Your task to perform on an android device: Show me productivity apps on the Play Store Image 0: 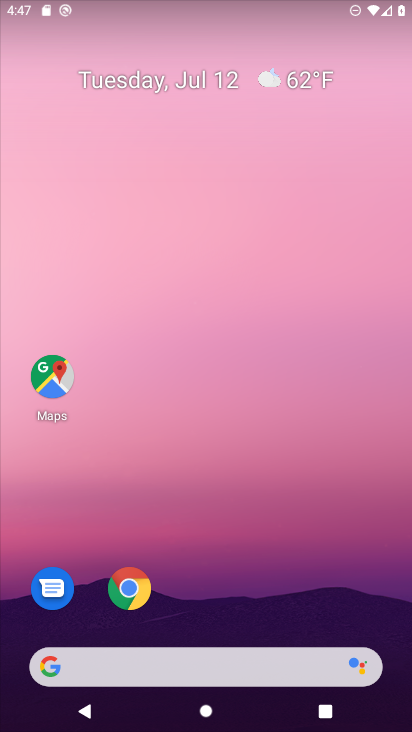
Step 0: drag from (223, 576) to (290, 40)
Your task to perform on an android device: Show me productivity apps on the Play Store Image 1: 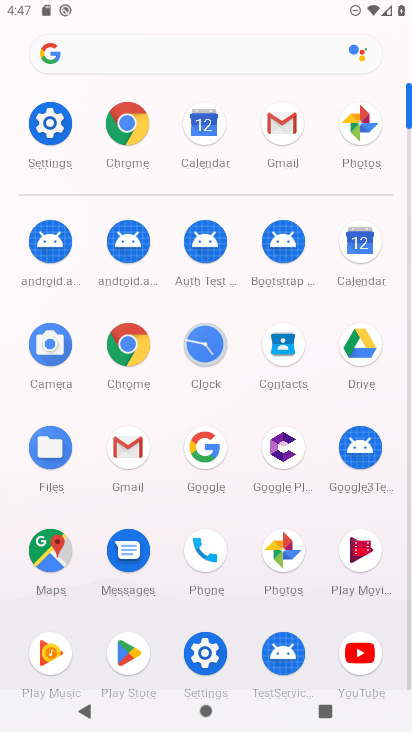
Step 1: click (140, 647)
Your task to perform on an android device: Show me productivity apps on the Play Store Image 2: 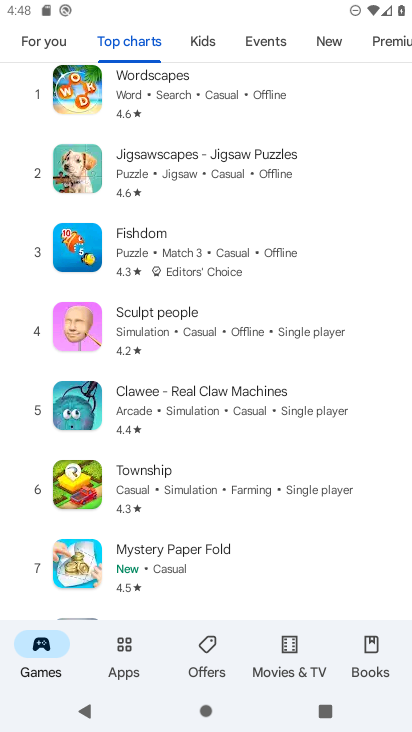
Step 2: click (128, 642)
Your task to perform on an android device: Show me productivity apps on the Play Store Image 3: 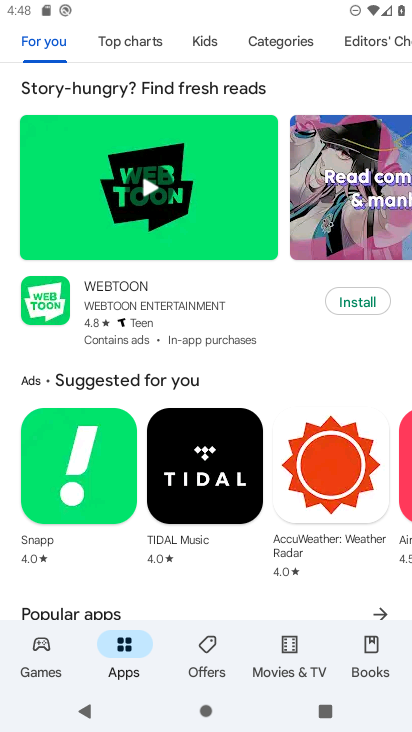
Step 3: click (310, 41)
Your task to perform on an android device: Show me productivity apps on the Play Store Image 4: 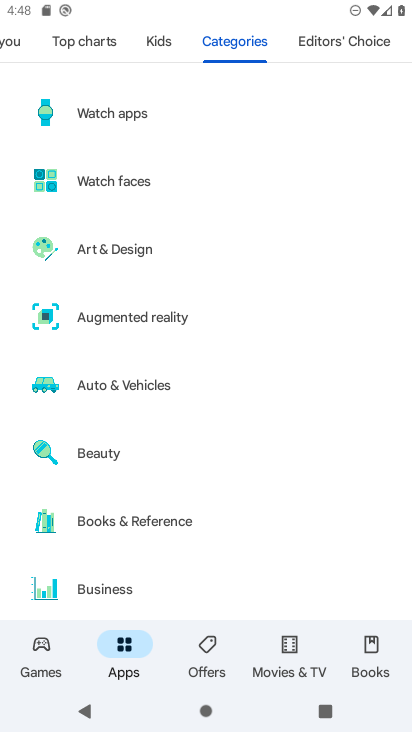
Step 4: drag from (158, 536) to (219, 132)
Your task to perform on an android device: Show me productivity apps on the Play Store Image 5: 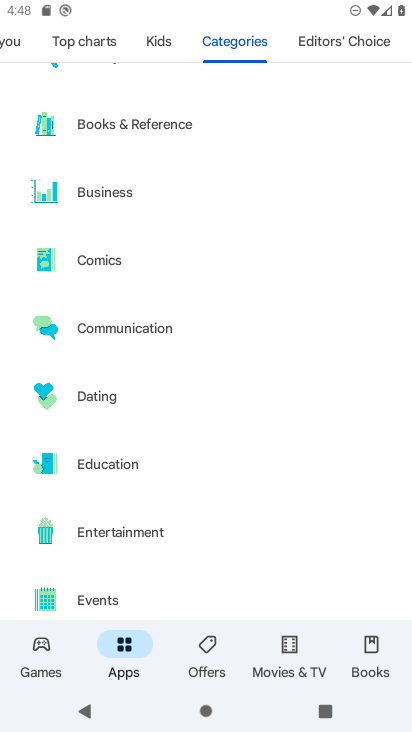
Step 5: drag from (231, 532) to (227, 113)
Your task to perform on an android device: Show me productivity apps on the Play Store Image 6: 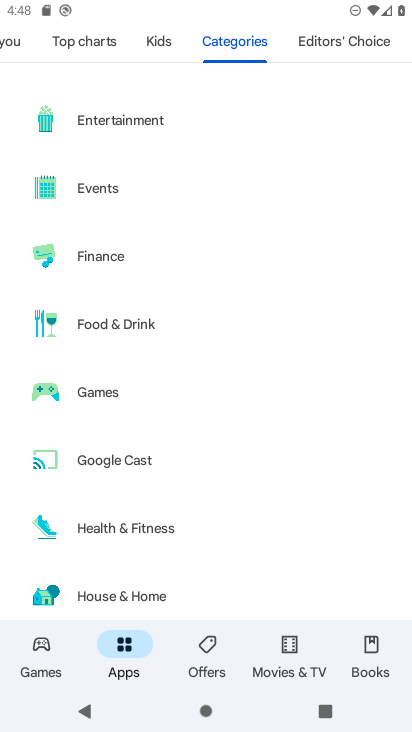
Step 6: drag from (126, 501) to (201, 14)
Your task to perform on an android device: Show me productivity apps on the Play Store Image 7: 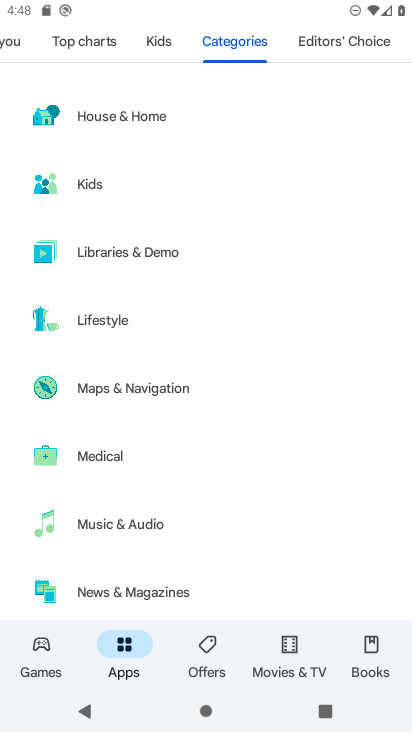
Step 7: drag from (144, 506) to (217, 15)
Your task to perform on an android device: Show me productivity apps on the Play Store Image 8: 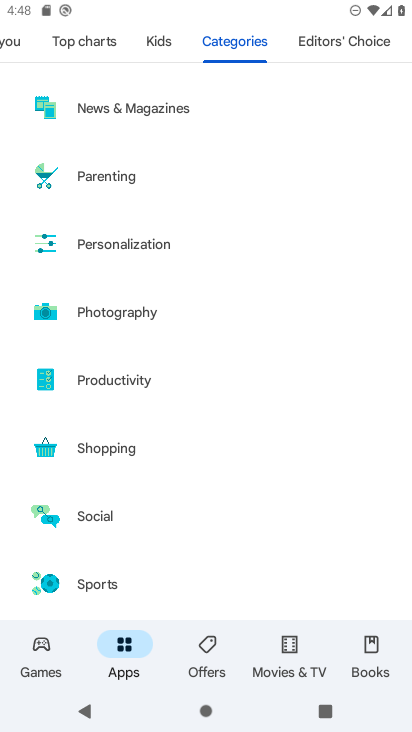
Step 8: drag from (139, 545) to (203, 168)
Your task to perform on an android device: Show me productivity apps on the Play Store Image 9: 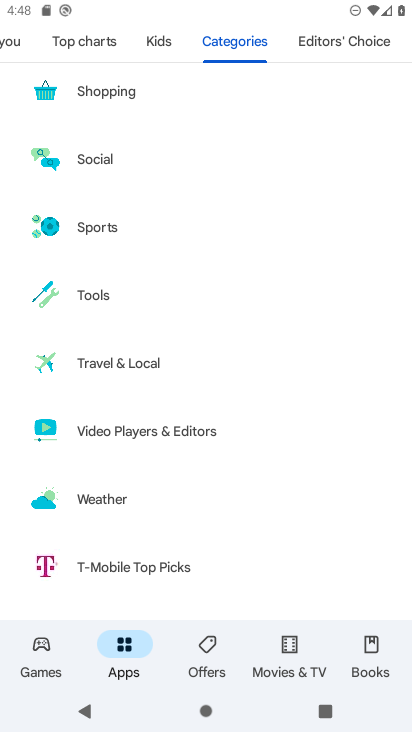
Step 9: drag from (172, 479) to (192, 187)
Your task to perform on an android device: Show me productivity apps on the Play Store Image 10: 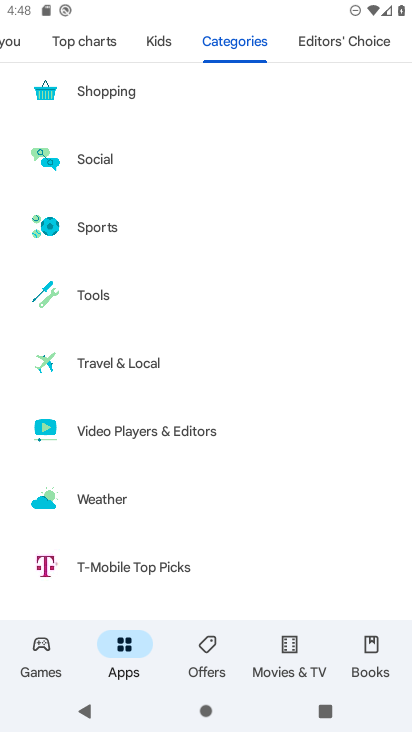
Step 10: drag from (159, 501) to (213, 118)
Your task to perform on an android device: Show me productivity apps on the Play Store Image 11: 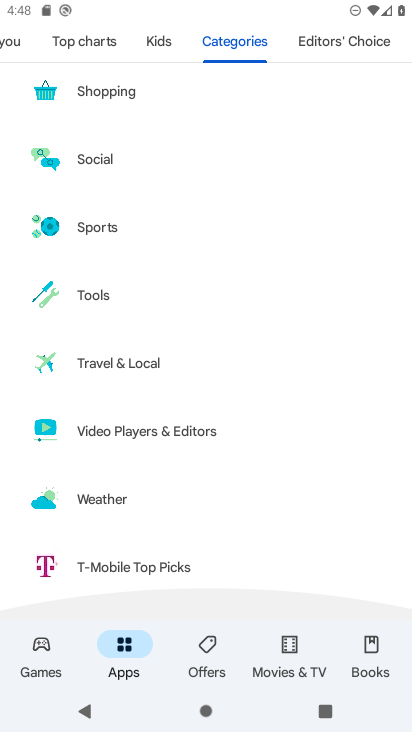
Step 11: drag from (213, 118) to (218, 618)
Your task to perform on an android device: Show me productivity apps on the Play Store Image 12: 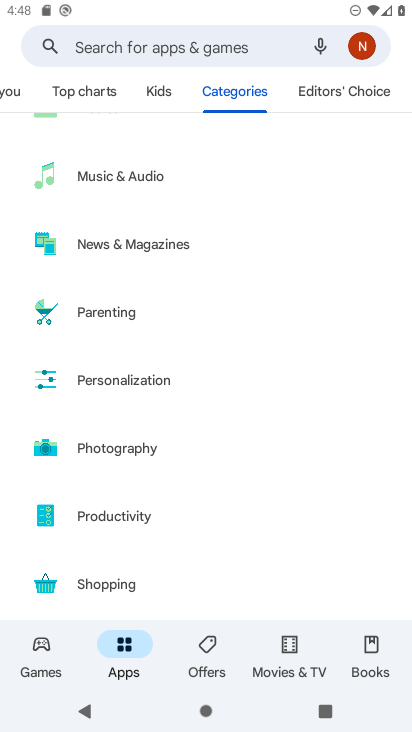
Step 12: click (115, 521)
Your task to perform on an android device: Show me productivity apps on the Play Store Image 13: 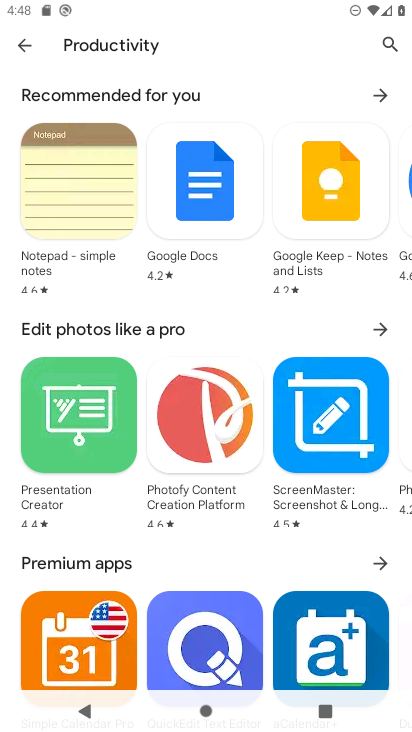
Step 13: task complete